Your task to perform on an android device: change the clock display to digital Image 0: 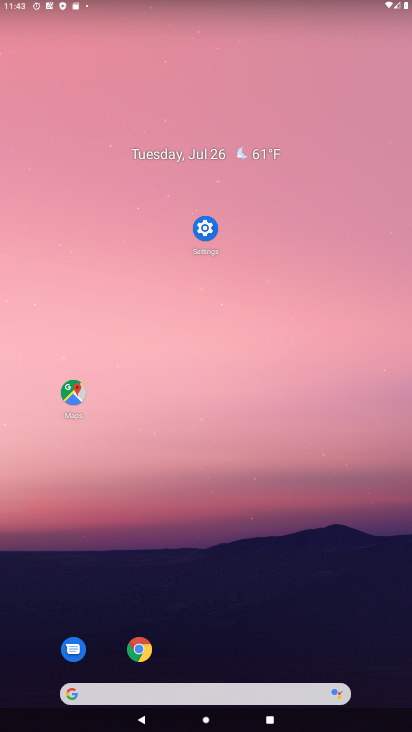
Step 0: drag from (227, 640) to (255, 335)
Your task to perform on an android device: change the clock display to digital Image 1: 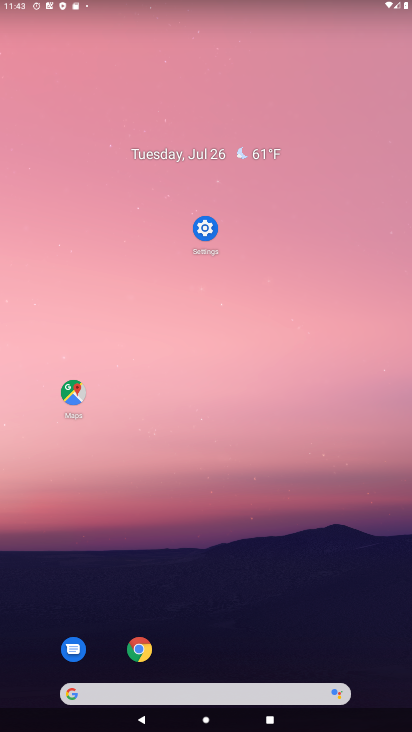
Step 1: drag from (224, 423) to (221, 23)
Your task to perform on an android device: change the clock display to digital Image 2: 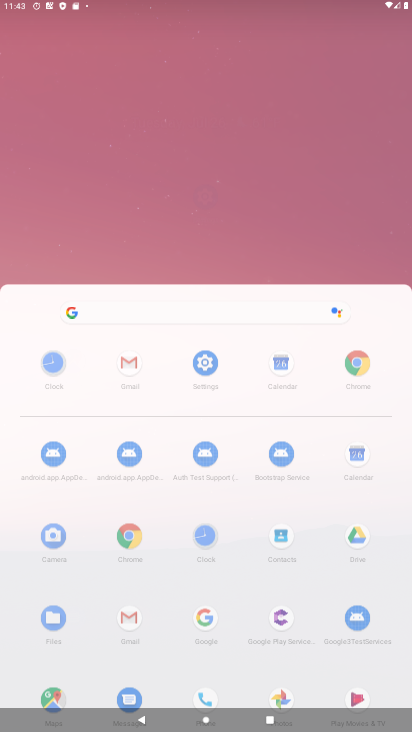
Step 2: drag from (250, 352) to (246, 7)
Your task to perform on an android device: change the clock display to digital Image 3: 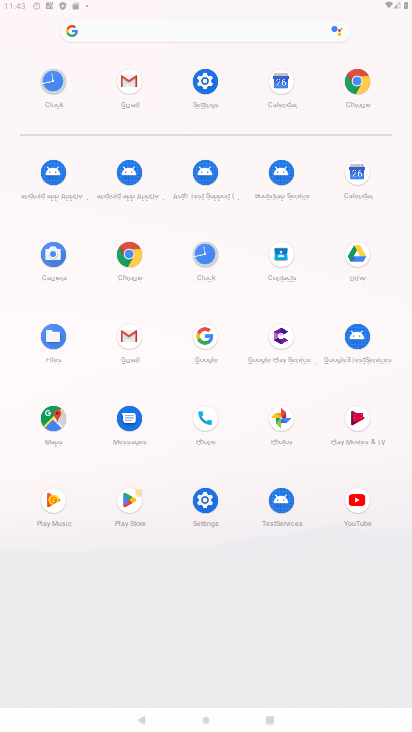
Step 3: drag from (289, 255) to (293, 1)
Your task to perform on an android device: change the clock display to digital Image 4: 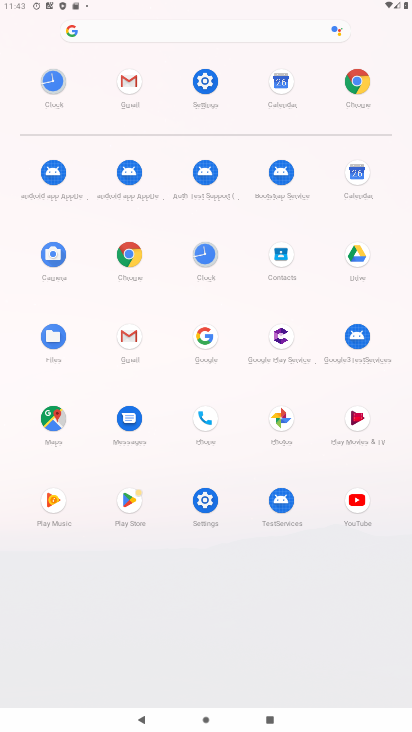
Step 4: click (198, 249)
Your task to perform on an android device: change the clock display to digital Image 5: 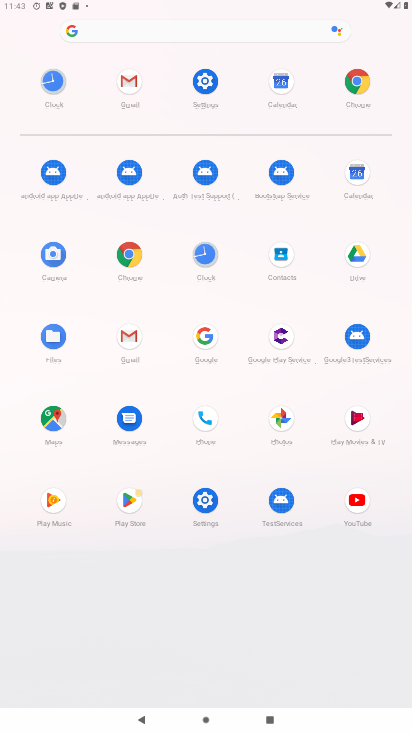
Step 5: click (201, 248)
Your task to perform on an android device: change the clock display to digital Image 6: 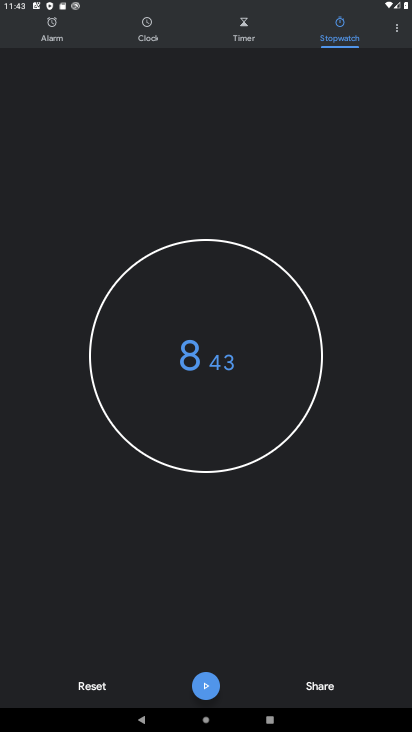
Step 6: click (395, 26)
Your task to perform on an android device: change the clock display to digital Image 7: 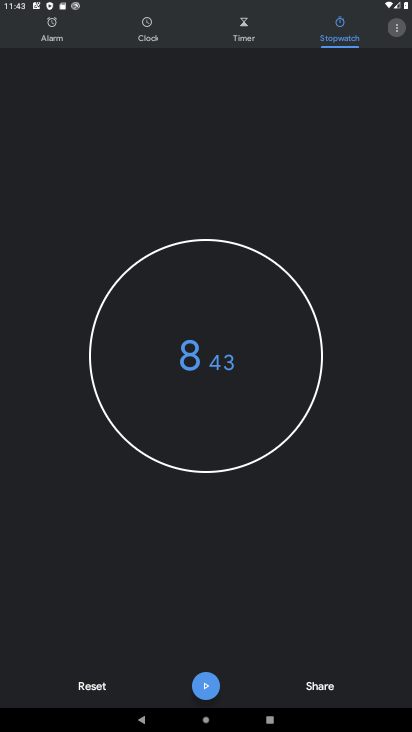
Step 7: click (402, 30)
Your task to perform on an android device: change the clock display to digital Image 8: 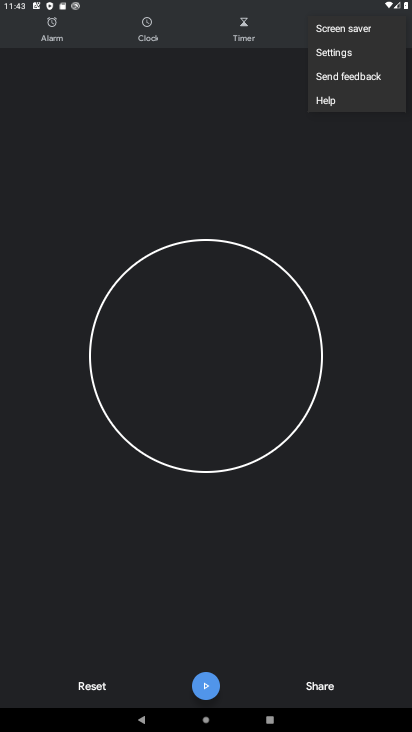
Step 8: click (327, 39)
Your task to perform on an android device: change the clock display to digital Image 9: 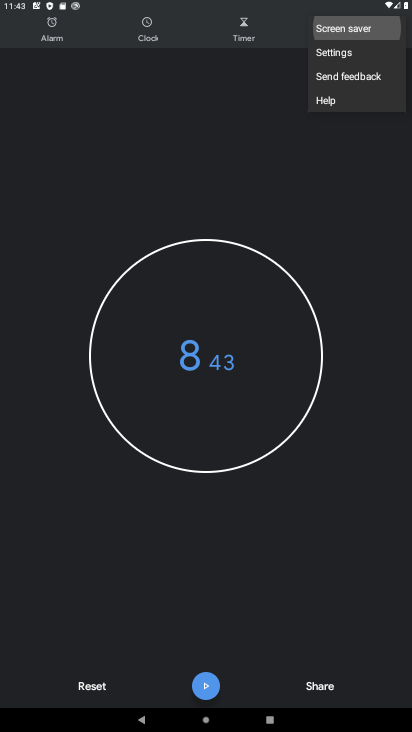
Step 9: click (327, 47)
Your task to perform on an android device: change the clock display to digital Image 10: 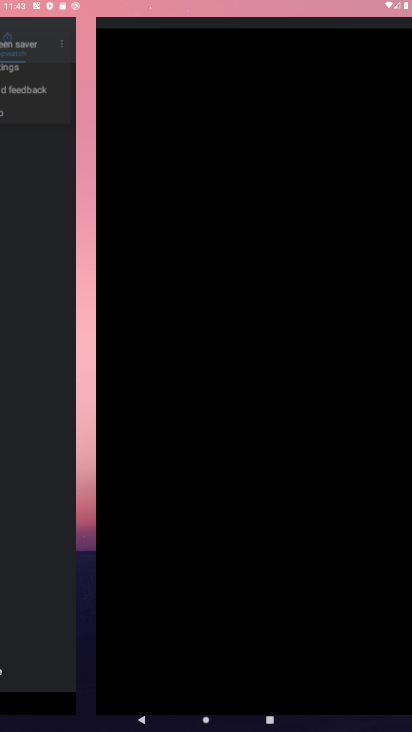
Step 10: click (336, 49)
Your task to perform on an android device: change the clock display to digital Image 11: 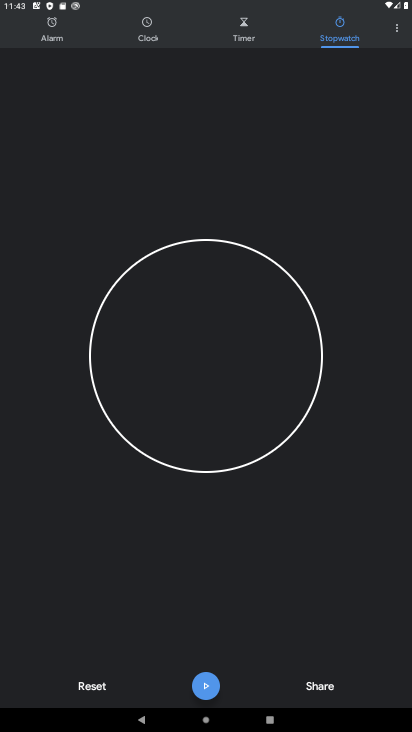
Step 11: click (404, 28)
Your task to perform on an android device: change the clock display to digital Image 12: 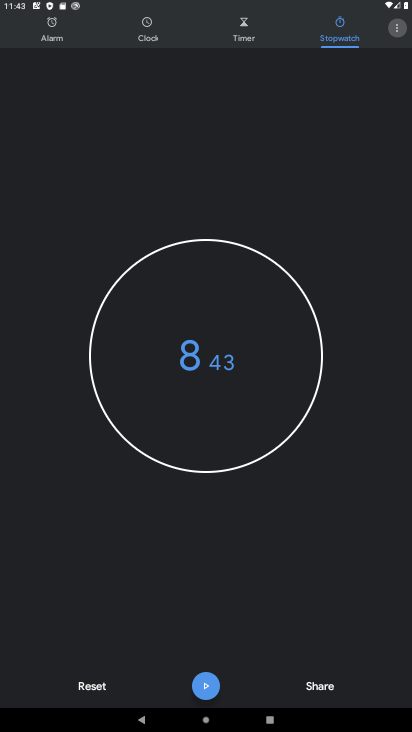
Step 12: click (404, 26)
Your task to perform on an android device: change the clock display to digital Image 13: 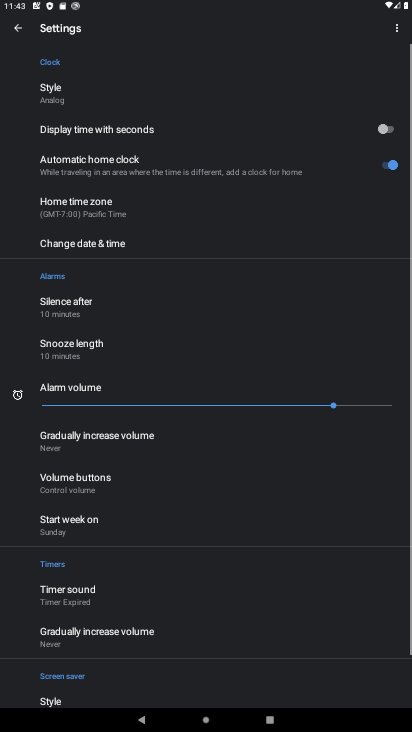
Step 13: click (334, 56)
Your task to perform on an android device: change the clock display to digital Image 14: 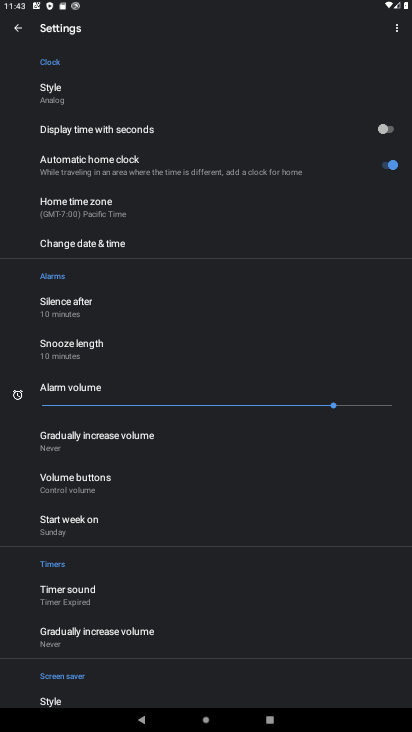
Step 14: click (69, 100)
Your task to perform on an android device: change the clock display to digital Image 15: 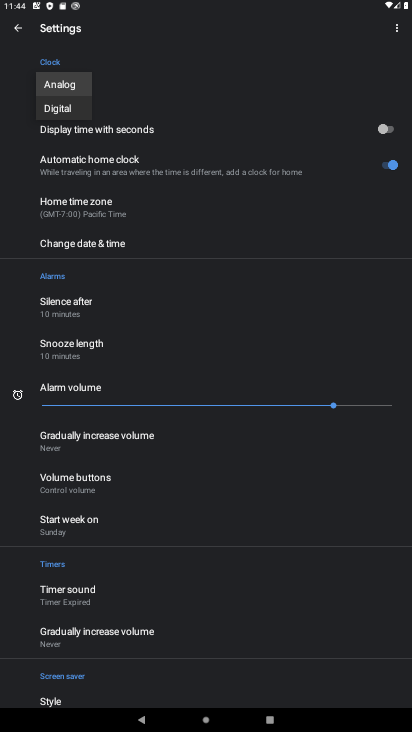
Step 15: click (73, 106)
Your task to perform on an android device: change the clock display to digital Image 16: 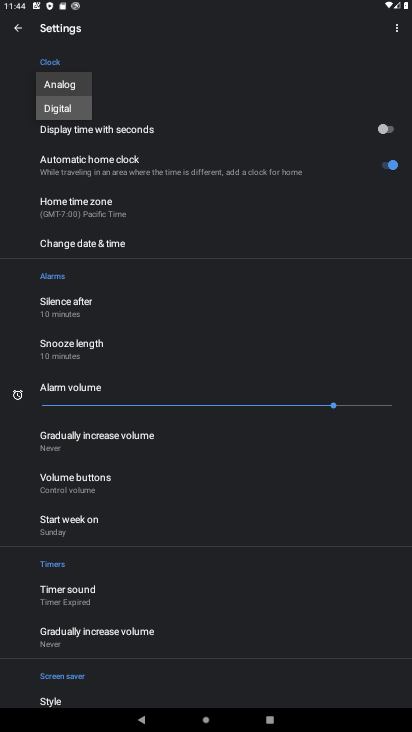
Step 16: click (73, 108)
Your task to perform on an android device: change the clock display to digital Image 17: 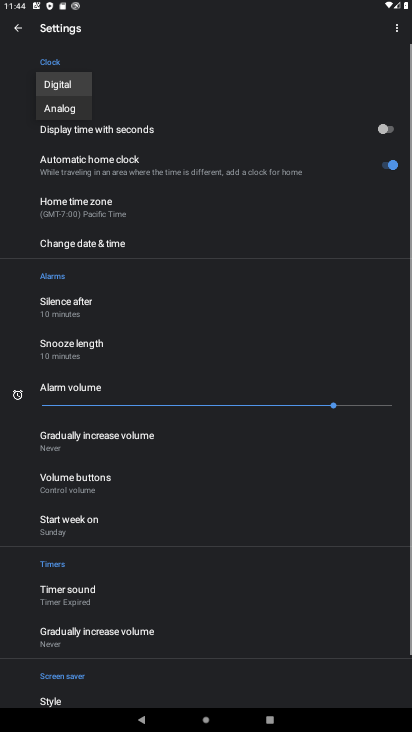
Step 17: task complete